Your task to perform on an android device: Set the phone to "Do not disturb". Image 0: 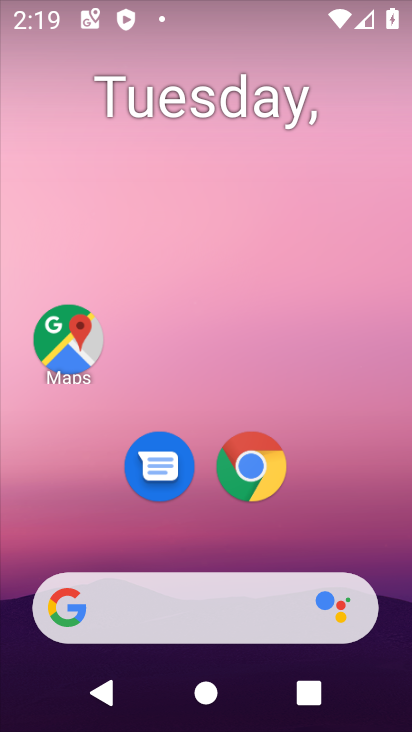
Step 0: task complete